Your task to perform on an android device: open app "Google Chat" (install if not already installed) Image 0: 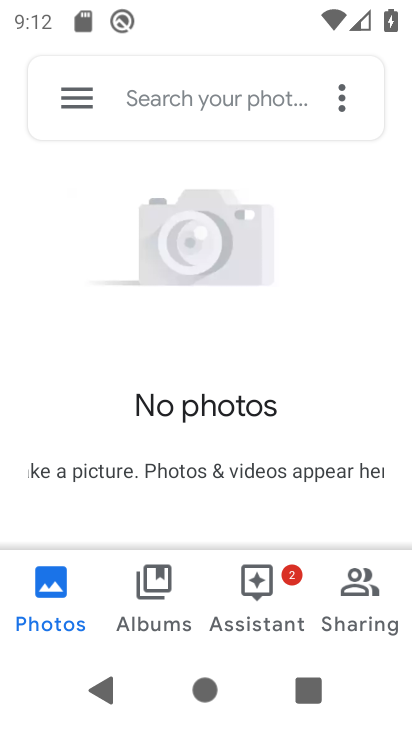
Step 0: press home button
Your task to perform on an android device: open app "Google Chat" (install if not already installed) Image 1: 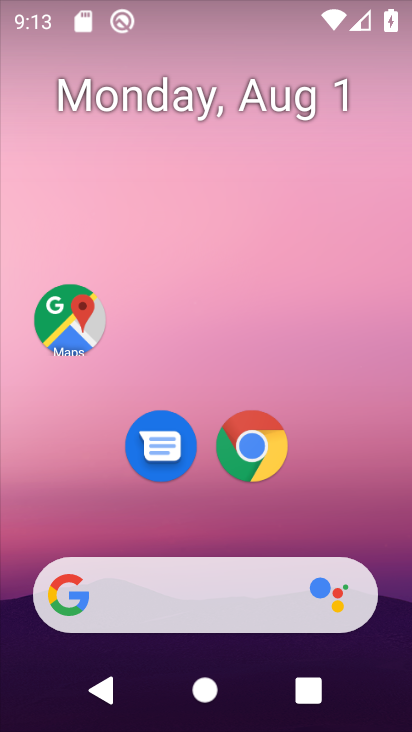
Step 1: drag from (173, 510) to (201, 70)
Your task to perform on an android device: open app "Google Chat" (install if not already installed) Image 2: 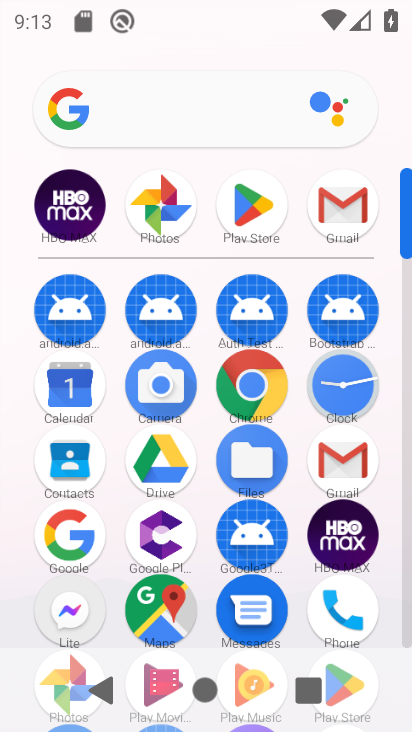
Step 2: click (247, 202)
Your task to perform on an android device: open app "Google Chat" (install if not already installed) Image 3: 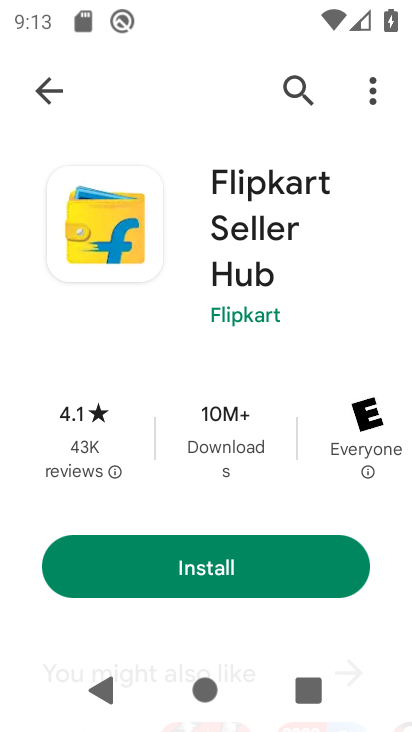
Step 3: click (297, 74)
Your task to perform on an android device: open app "Google Chat" (install if not already installed) Image 4: 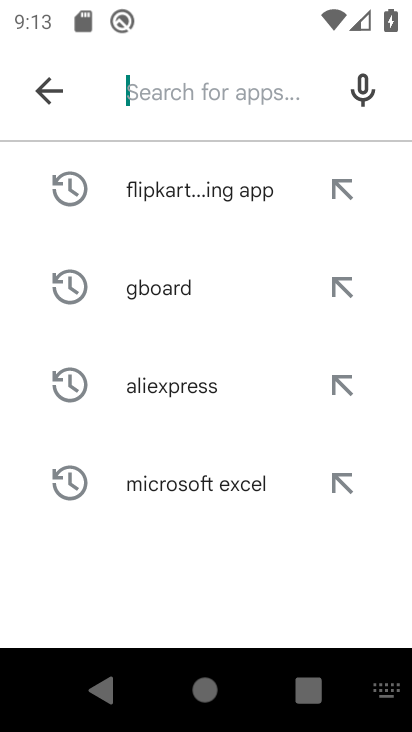
Step 4: type "Google Chat"
Your task to perform on an android device: open app "Google Chat" (install if not already installed) Image 5: 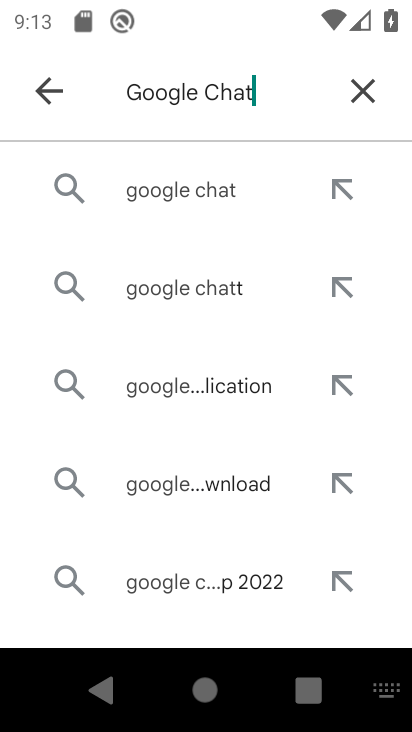
Step 5: type ""
Your task to perform on an android device: open app "Google Chat" (install if not already installed) Image 6: 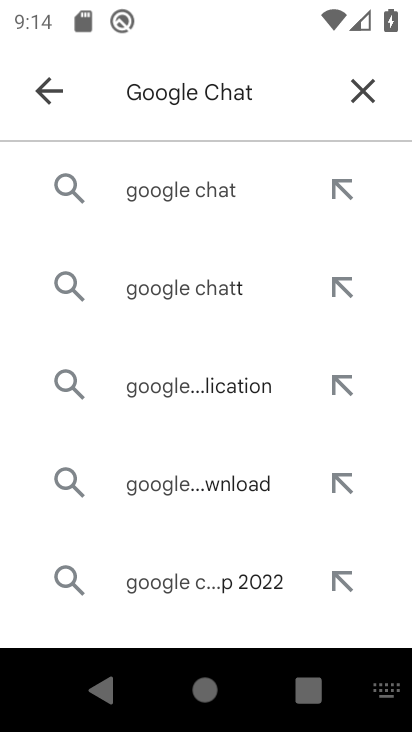
Step 6: click (216, 172)
Your task to perform on an android device: open app "Google Chat" (install if not already installed) Image 7: 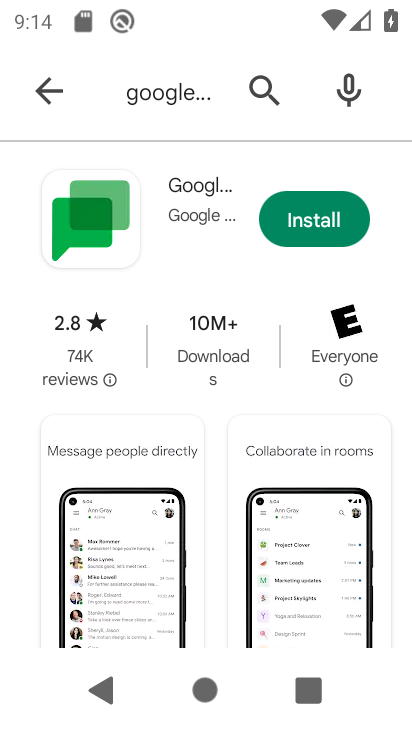
Step 7: click (315, 245)
Your task to perform on an android device: open app "Google Chat" (install if not already installed) Image 8: 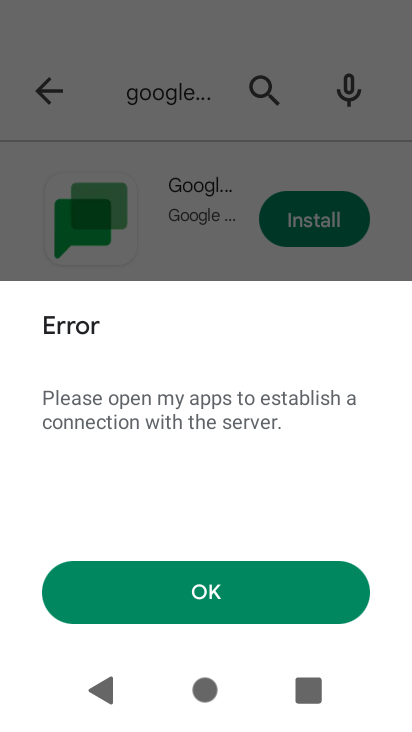
Step 8: click (260, 601)
Your task to perform on an android device: open app "Google Chat" (install if not already installed) Image 9: 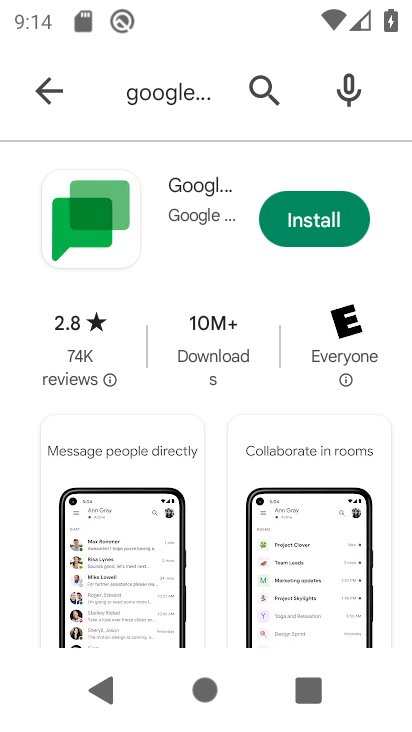
Step 9: task complete